Your task to perform on an android device: open app "Pandora - Music & Podcasts" (install if not already installed) Image 0: 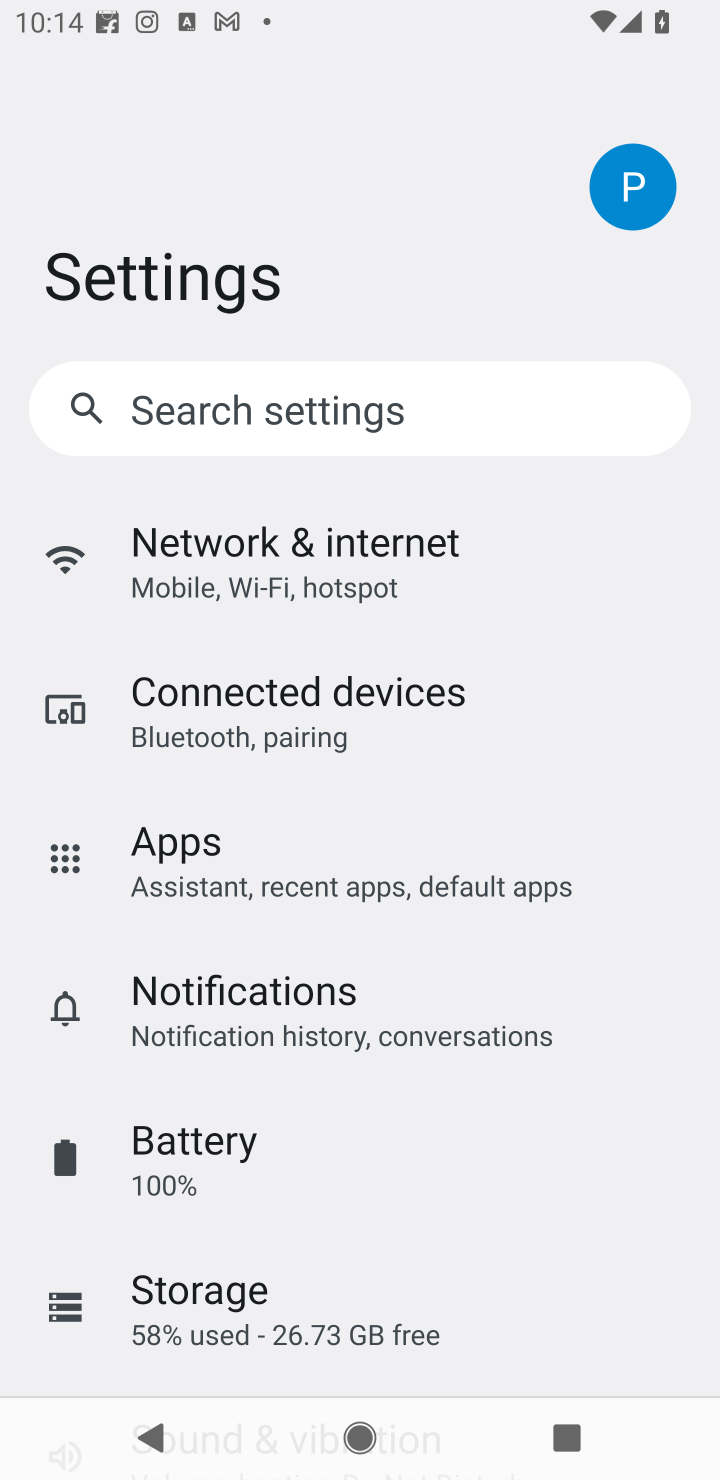
Step 0: press home button
Your task to perform on an android device: open app "Pandora - Music & Podcasts" (install if not already installed) Image 1: 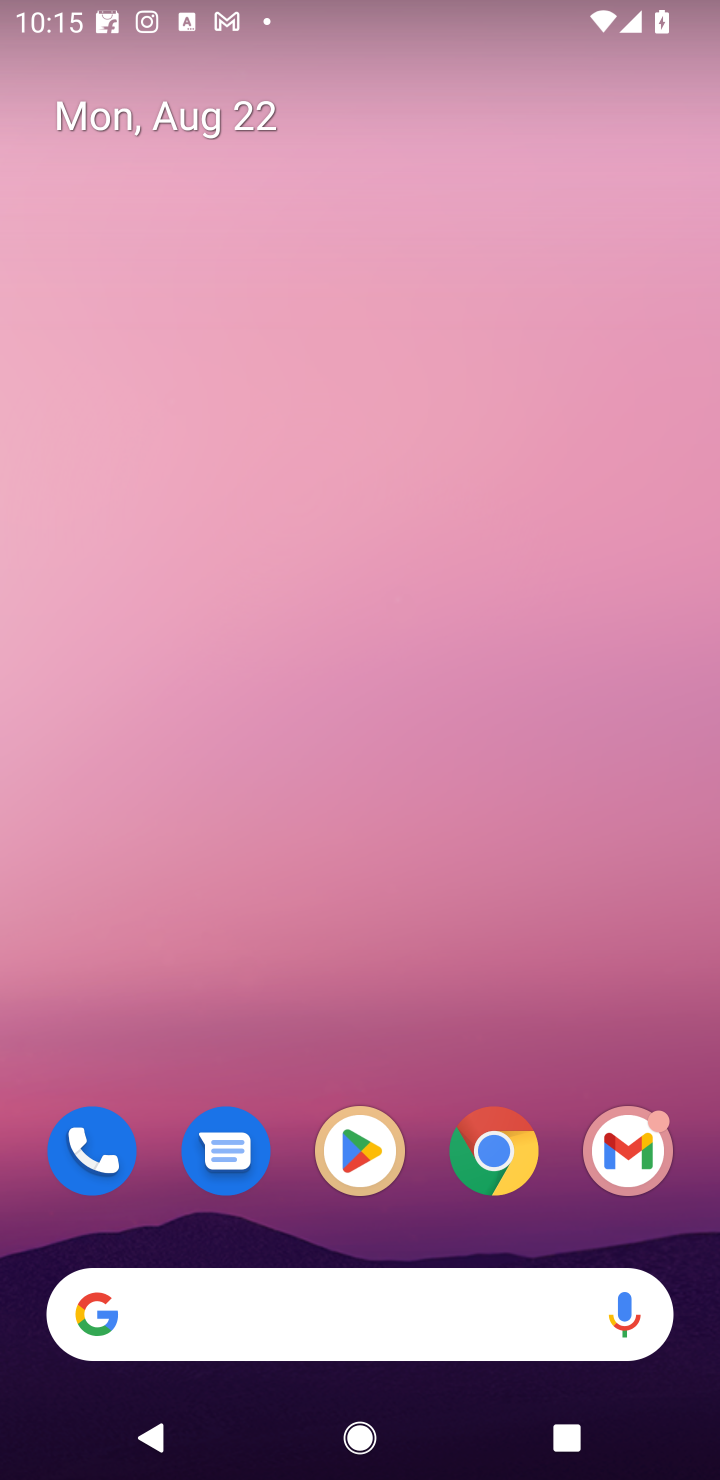
Step 1: click (348, 1142)
Your task to perform on an android device: open app "Pandora - Music & Podcasts" (install if not already installed) Image 2: 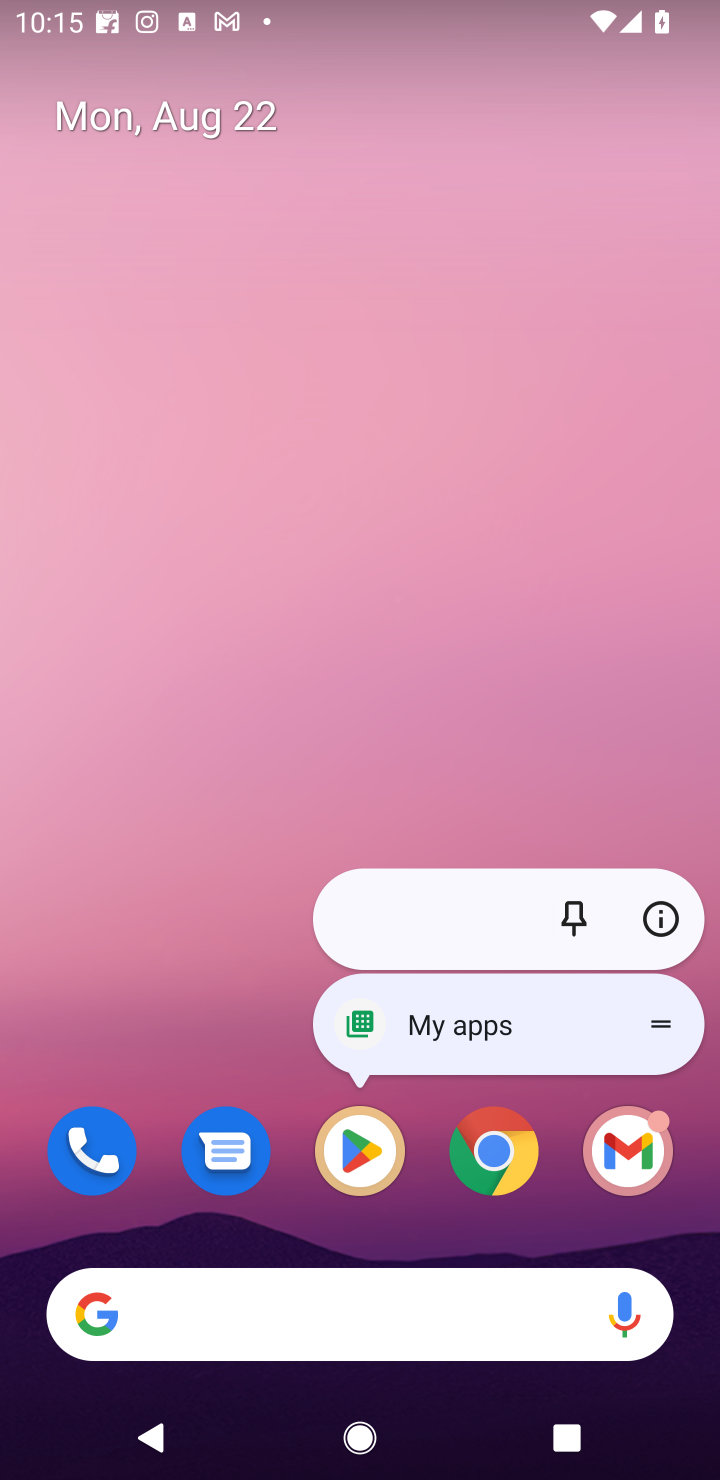
Step 2: click (348, 1144)
Your task to perform on an android device: open app "Pandora - Music & Podcasts" (install if not already installed) Image 3: 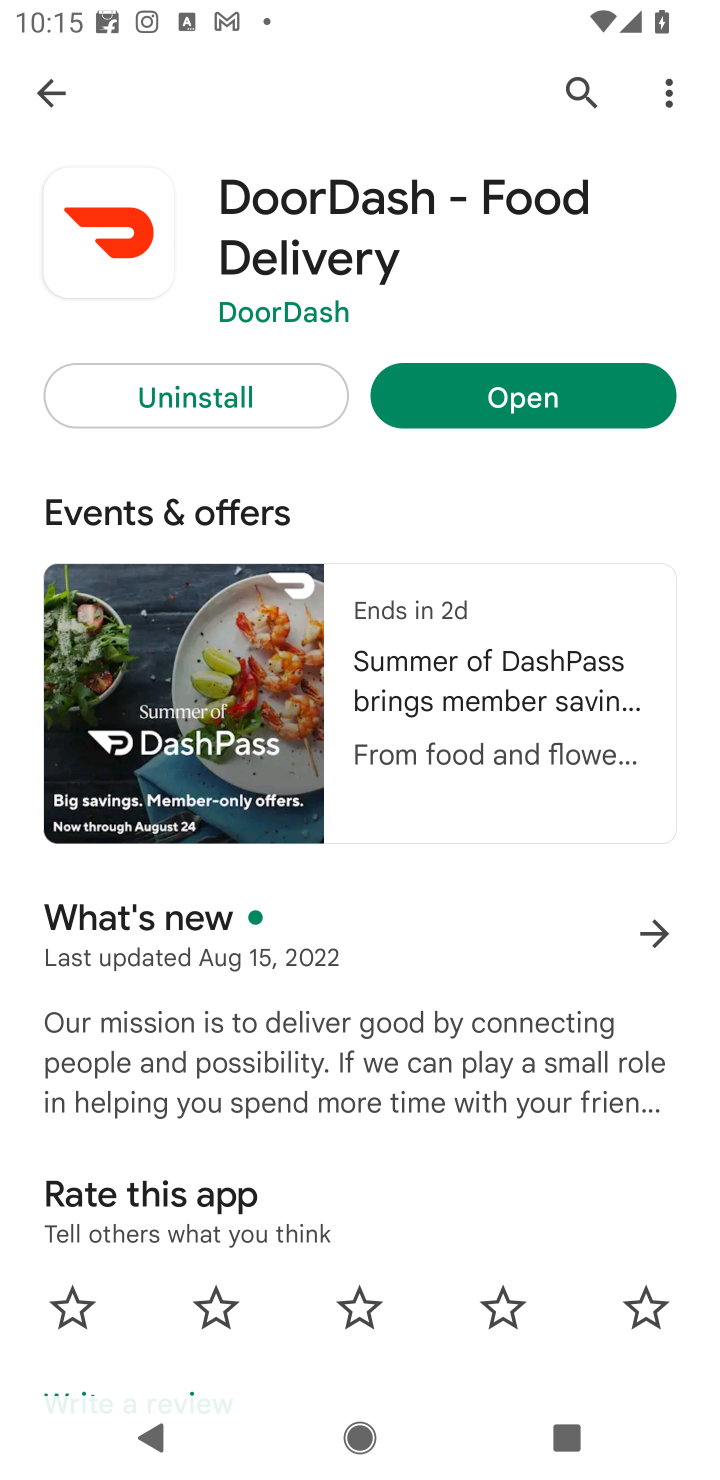
Step 3: click (583, 75)
Your task to perform on an android device: open app "Pandora - Music & Podcasts" (install if not already installed) Image 4: 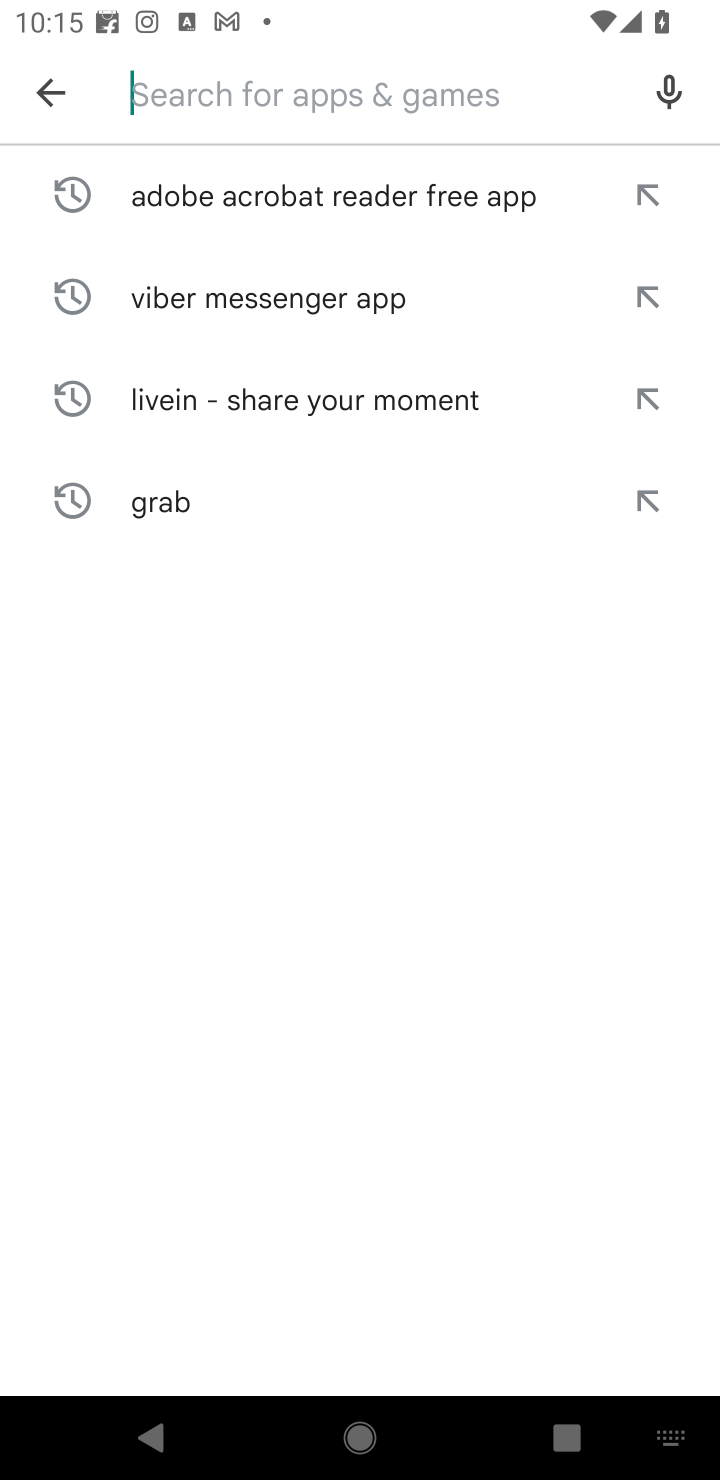
Step 4: drag from (371, 1476) to (710, 1059)
Your task to perform on an android device: open app "Pandora - Music & Podcasts" (install if not already installed) Image 5: 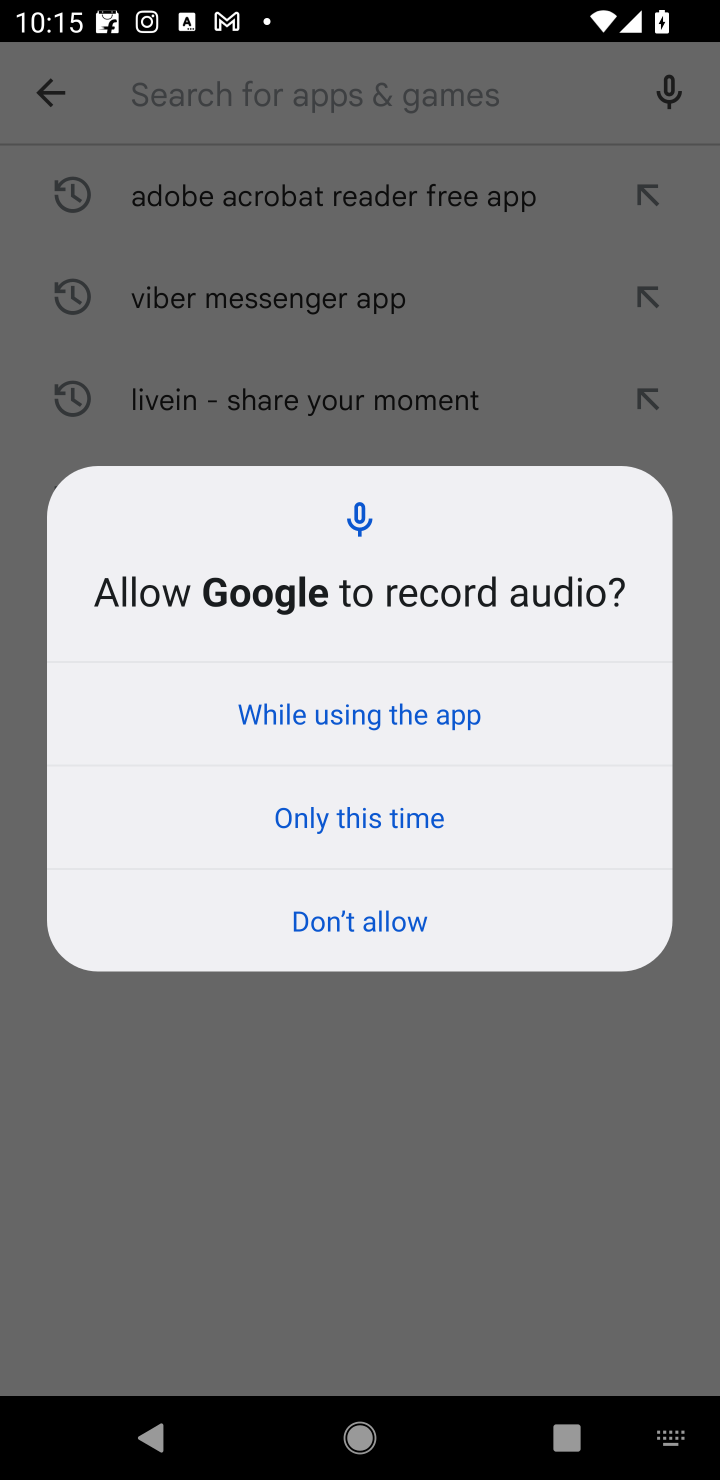
Step 5: click (527, 1164)
Your task to perform on an android device: open app "Pandora - Music & Podcasts" (install if not already installed) Image 6: 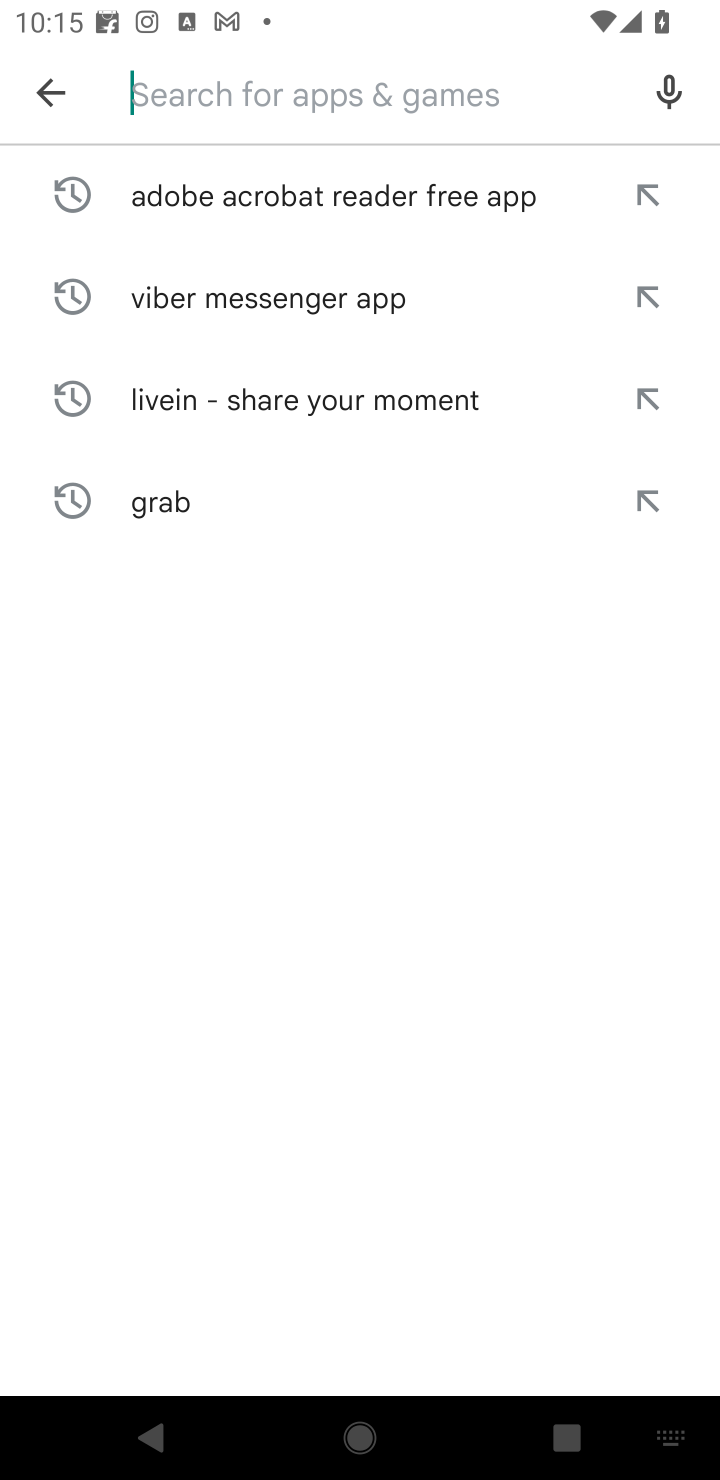
Step 6: type "Pandora - Music & Podcasts"
Your task to perform on an android device: open app "Pandora - Music & Podcasts" (install if not already installed) Image 7: 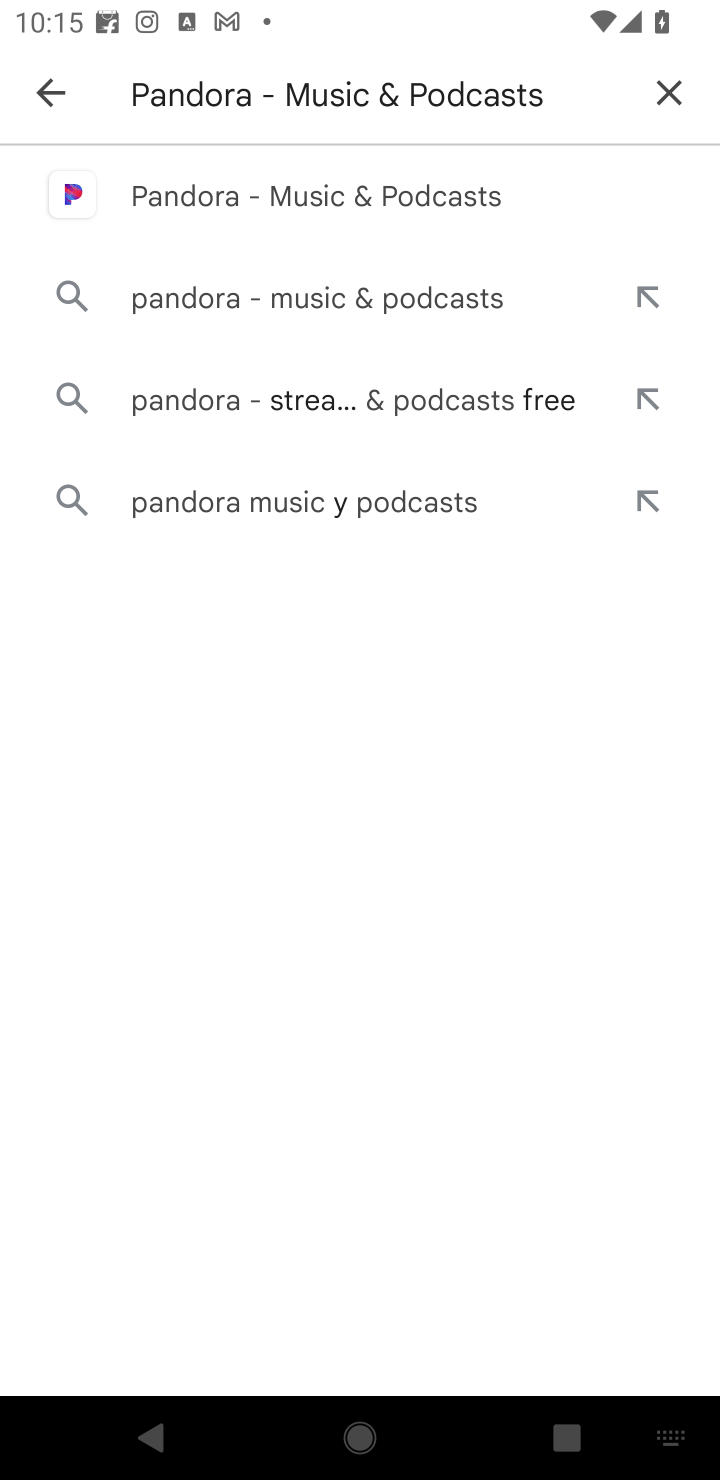
Step 7: click (354, 216)
Your task to perform on an android device: open app "Pandora - Music & Podcasts" (install if not already installed) Image 8: 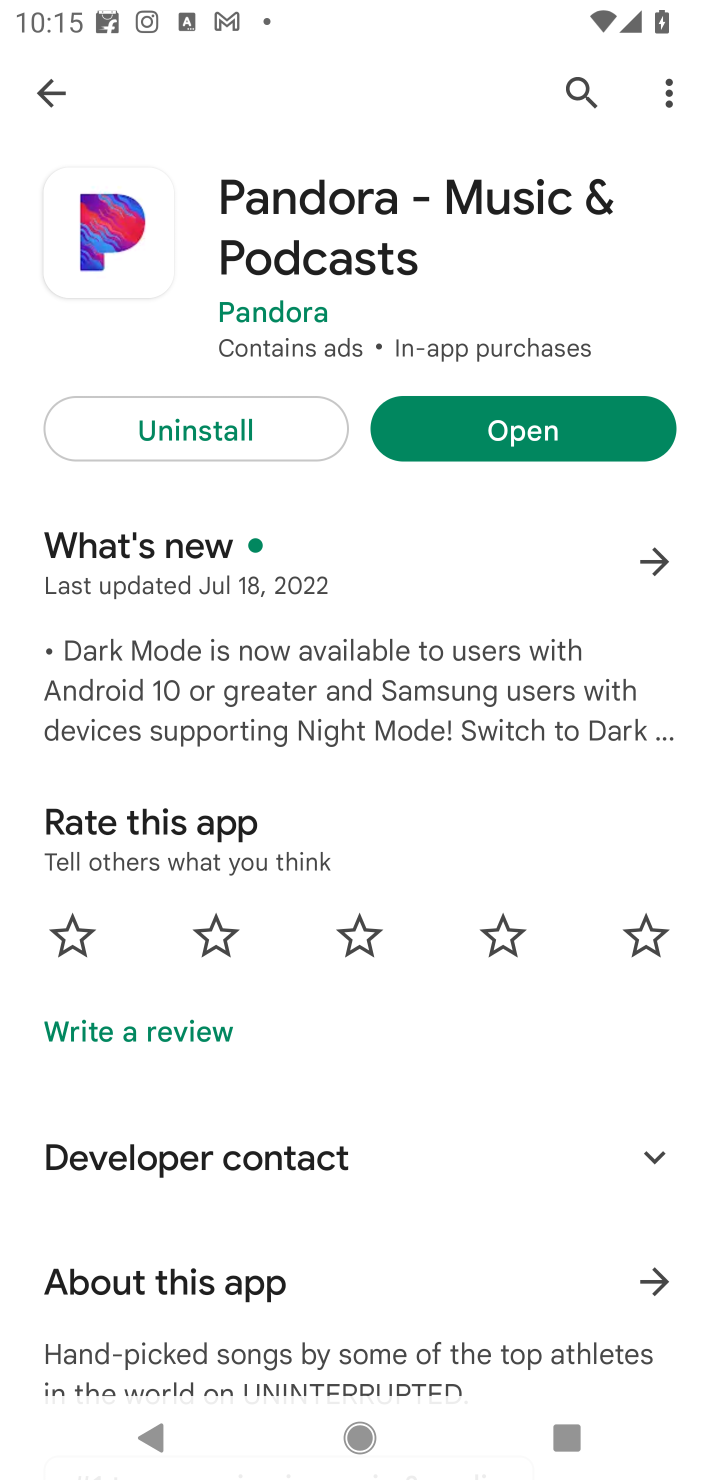
Step 8: click (513, 424)
Your task to perform on an android device: open app "Pandora - Music & Podcasts" (install if not already installed) Image 9: 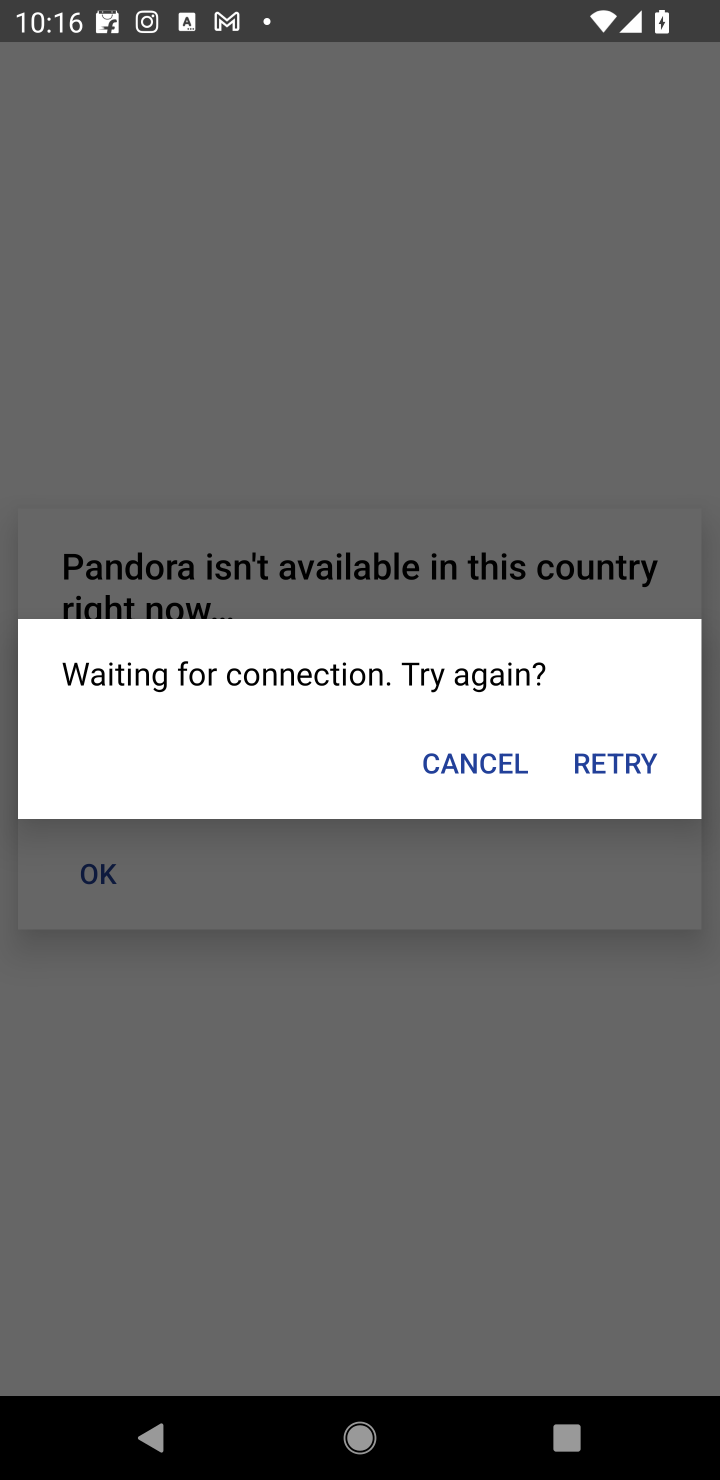
Step 9: task complete